Your task to perform on an android device: Open Youtube and go to "Your channel" Image 0: 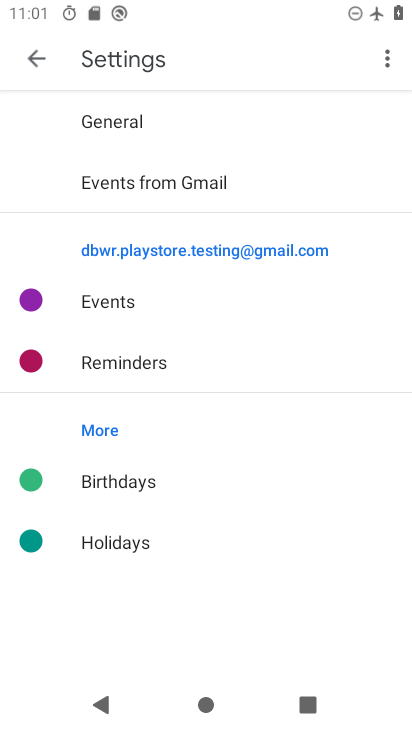
Step 0: press home button
Your task to perform on an android device: Open Youtube and go to "Your channel" Image 1: 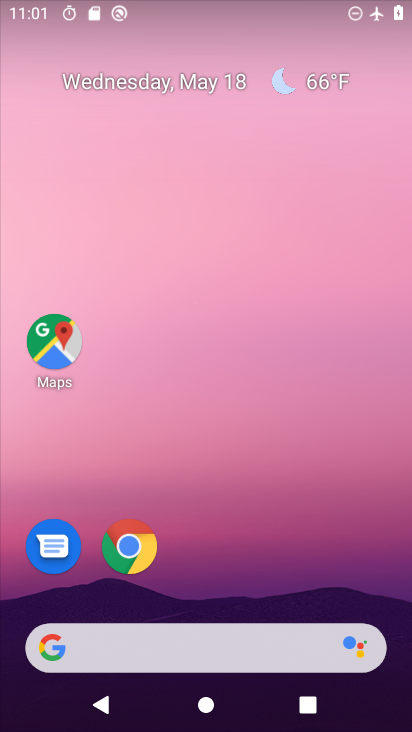
Step 1: drag from (166, 614) to (261, 162)
Your task to perform on an android device: Open Youtube and go to "Your channel" Image 2: 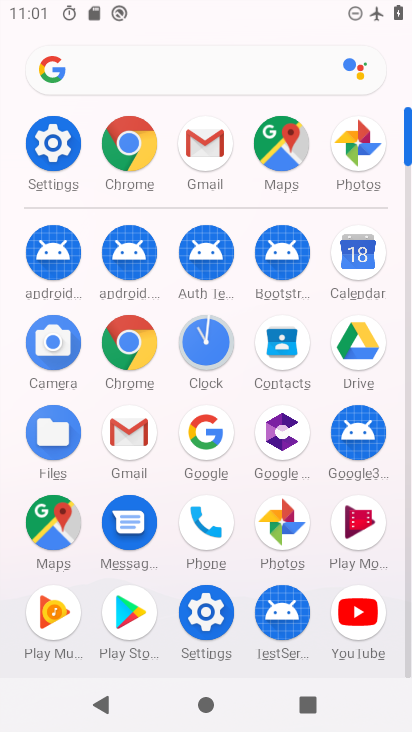
Step 2: click (353, 606)
Your task to perform on an android device: Open Youtube and go to "Your channel" Image 3: 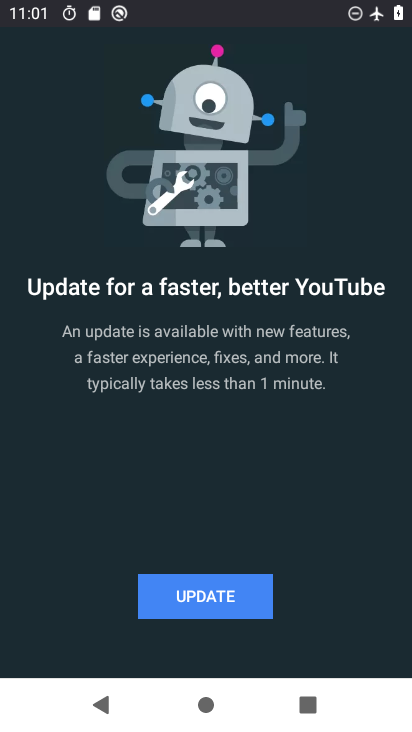
Step 3: click (196, 607)
Your task to perform on an android device: Open Youtube and go to "Your channel" Image 4: 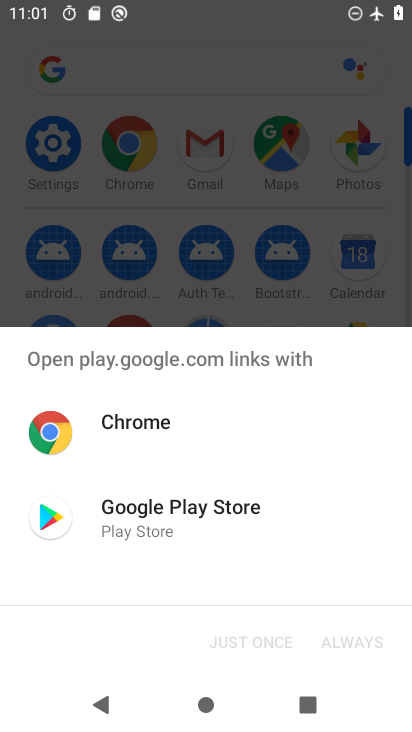
Step 4: click (144, 533)
Your task to perform on an android device: Open Youtube and go to "Your channel" Image 5: 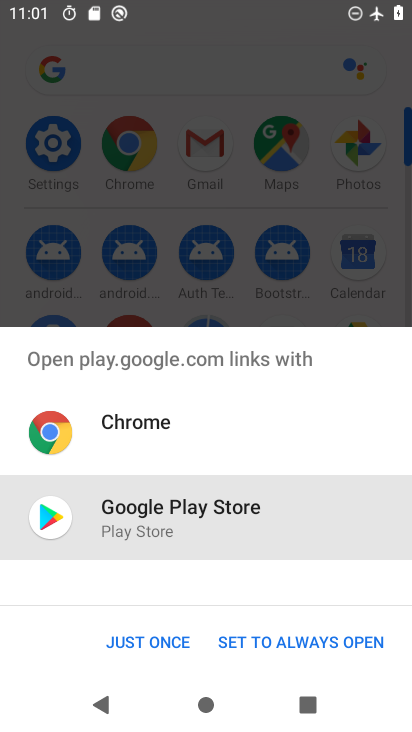
Step 5: click (129, 639)
Your task to perform on an android device: Open Youtube and go to "Your channel" Image 6: 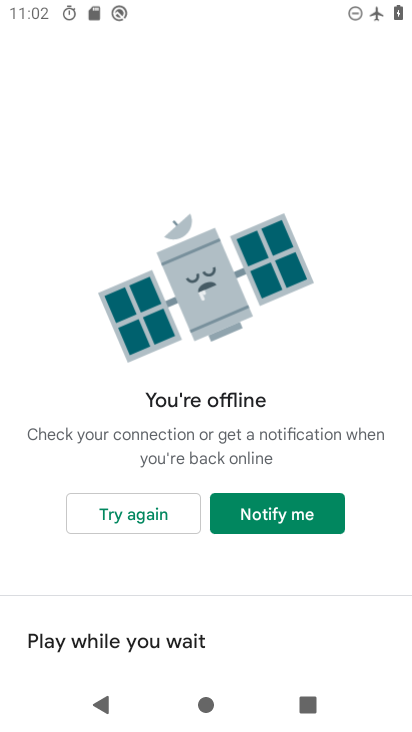
Step 6: drag from (158, 4) to (202, 556)
Your task to perform on an android device: Open Youtube and go to "Your channel" Image 7: 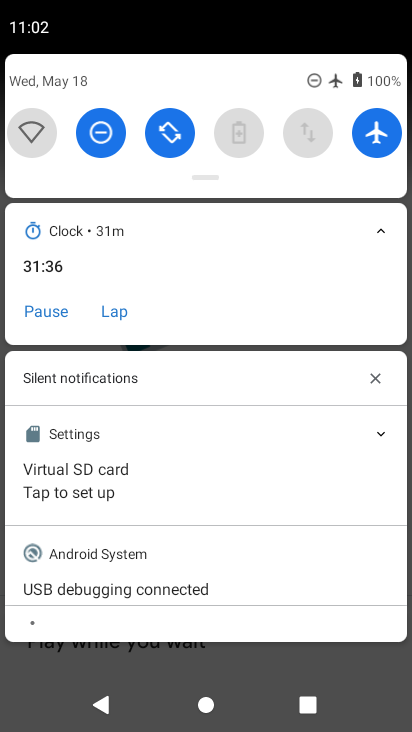
Step 7: click (386, 128)
Your task to perform on an android device: Open Youtube and go to "Your channel" Image 8: 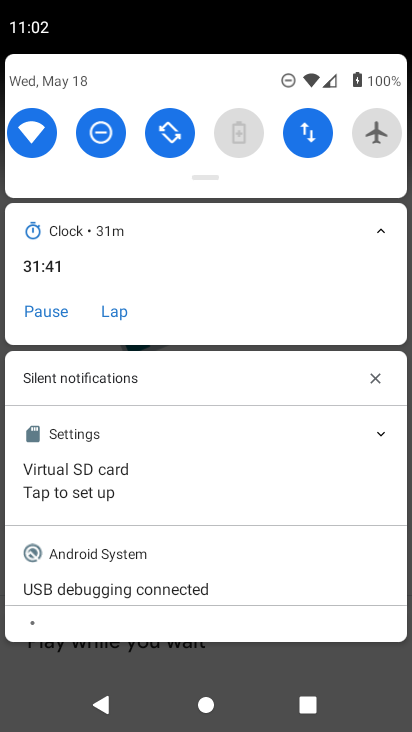
Step 8: click (274, 670)
Your task to perform on an android device: Open Youtube and go to "Your channel" Image 9: 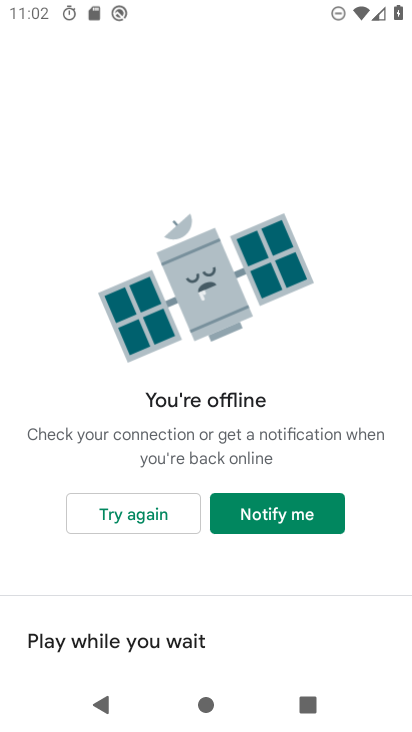
Step 9: task complete